Your task to perform on an android device: Do I have any events this weekend? Image 0: 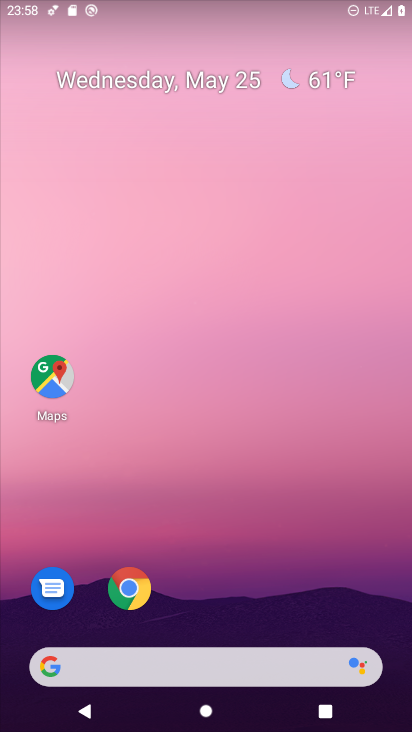
Step 0: drag from (258, 525) to (165, 57)
Your task to perform on an android device: Do I have any events this weekend? Image 1: 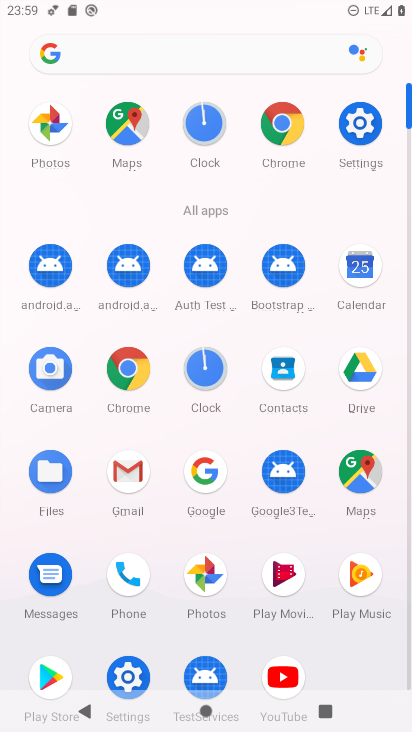
Step 1: click (349, 273)
Your task to perform on an android device: Do I have any events this weekend? Image 2: 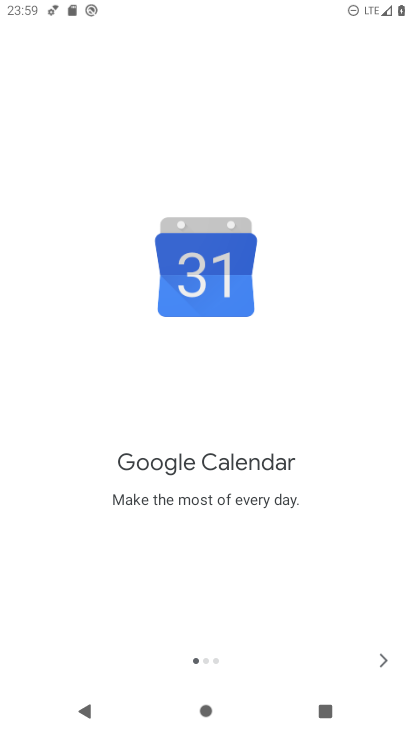
Step 2: click (378, 662)
Your task to perform on an android device: Do I have any events this weekend? Image 3: 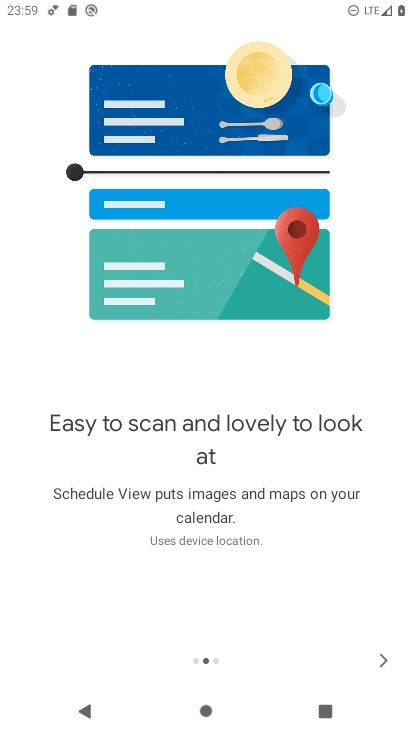
Step 3: click (378, 662)
Your task to perform on an android device: Do I have any events this weekend? Image 4: 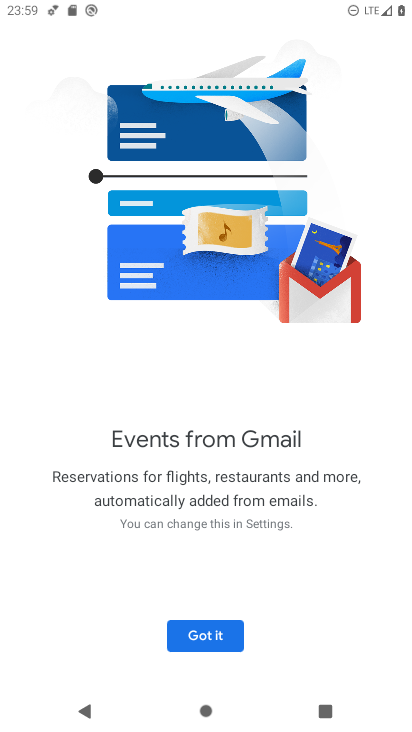
Step 4: click (194, 634)
Your task to perform on an android device: Do I have any events this weekend? Image 5: 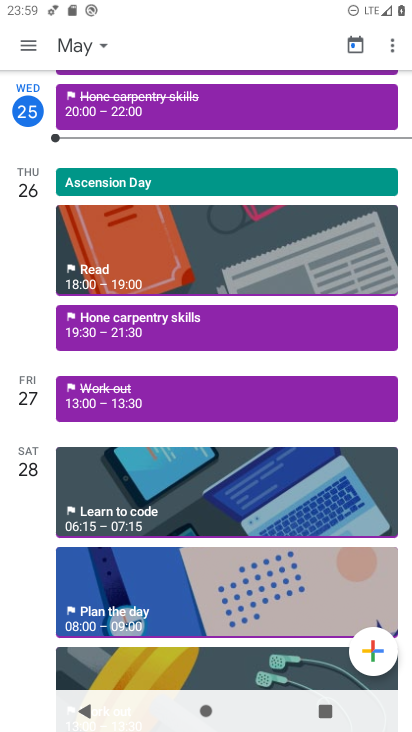
Step 5: task complete